Your task to perform on an android device: What's the US dollar exchange rate against the Australian Dollar? Image 0: 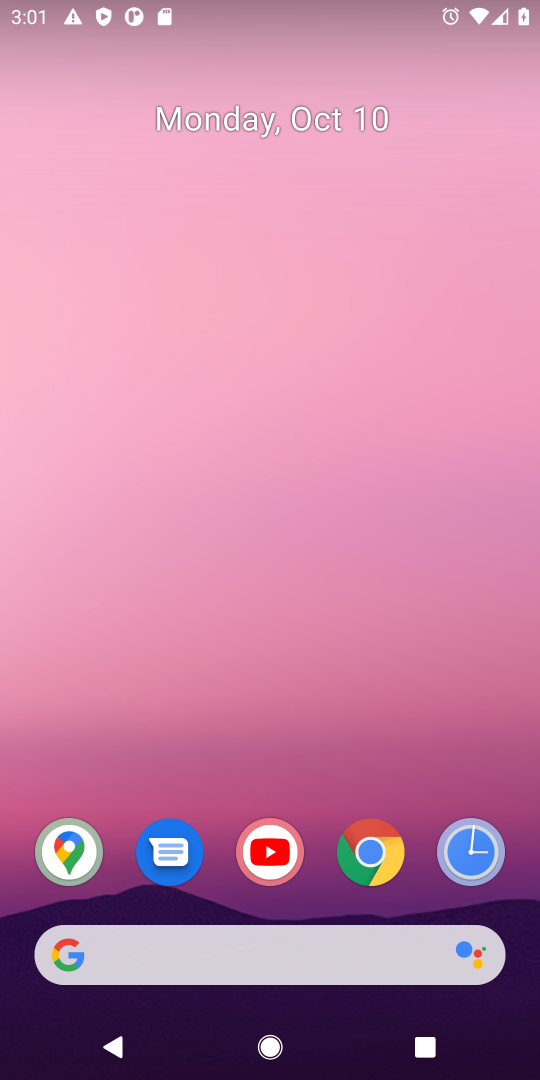
Step 0: click (175, 939)
Your task to perform on an android device: What's the US dollar exchange rate against the Australian Dollar? Image 1: 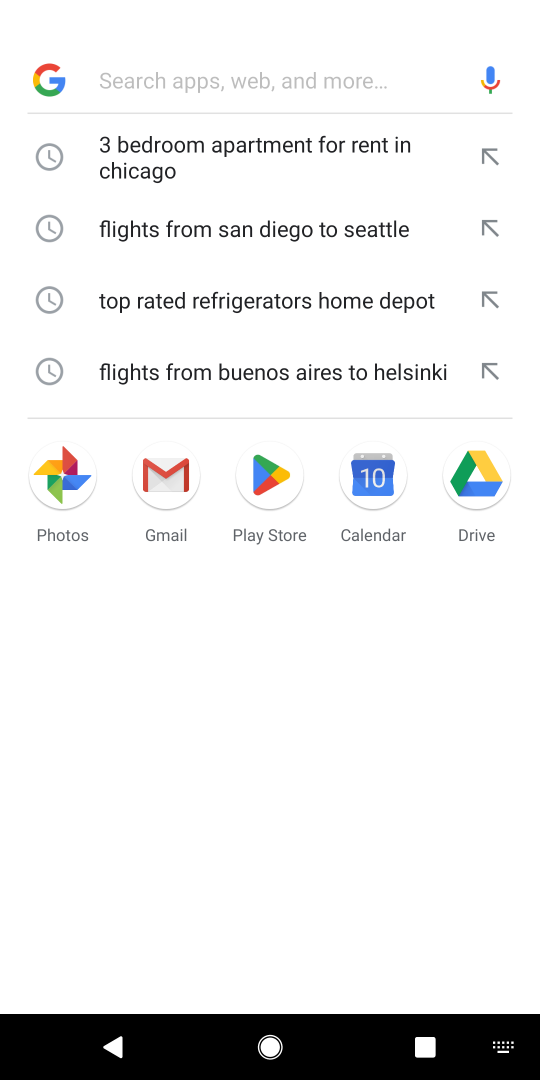
Step 1: type "US dollar exchange rate against the Australian Dollar"
Your task to perform on an android device: What's the US dollar exchange rate against the Australian Dollar? Image 2: 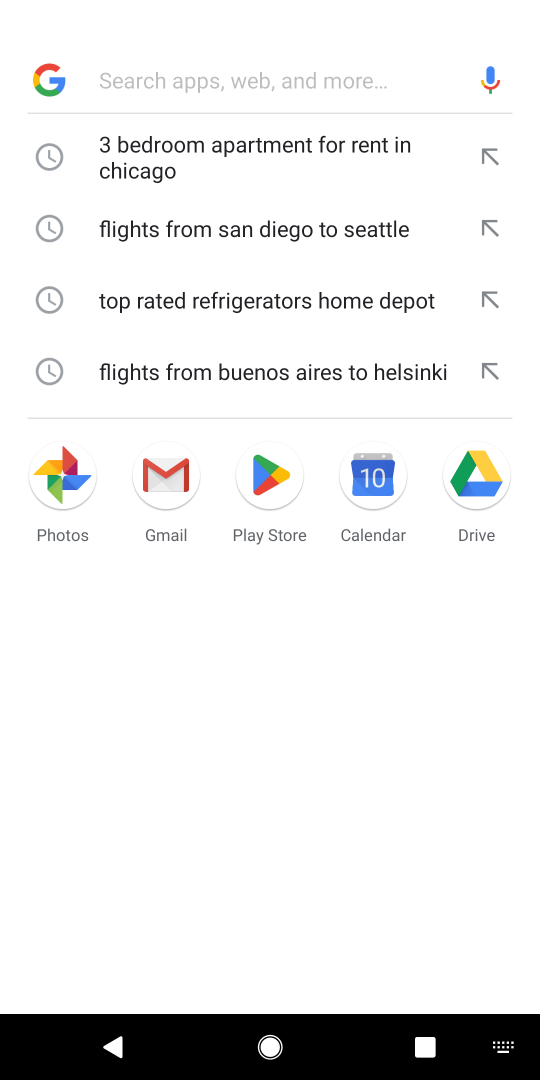
Step 2: click (154, 71)
Your task to perform on an android device: What's the US dollar exchange rate against the Australian Dollar? Image 3: 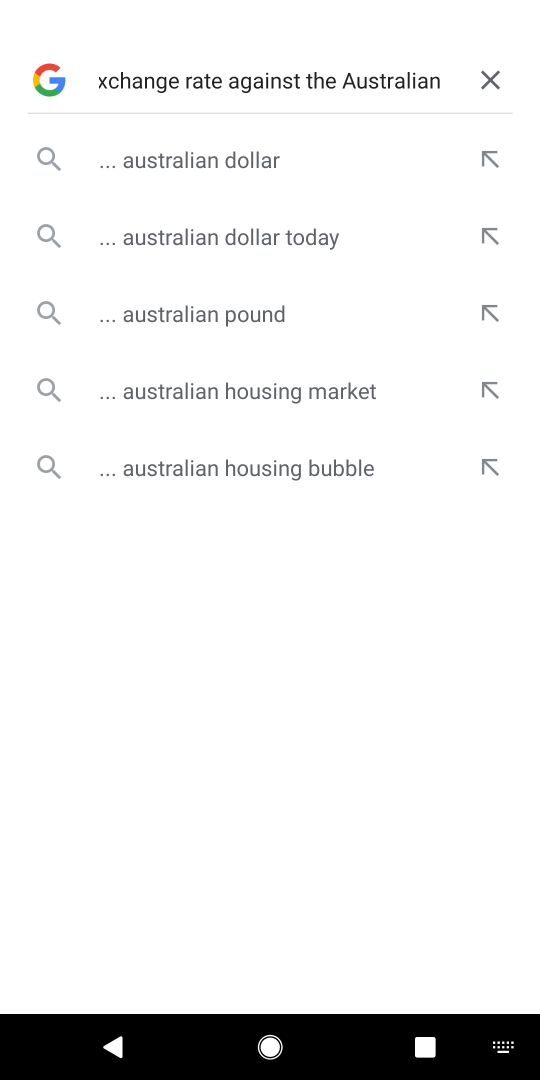
Step 3: type ""
Your task to perform on an android device: What's the US dollar exchange rate against the Australian Dollar? Image 4: 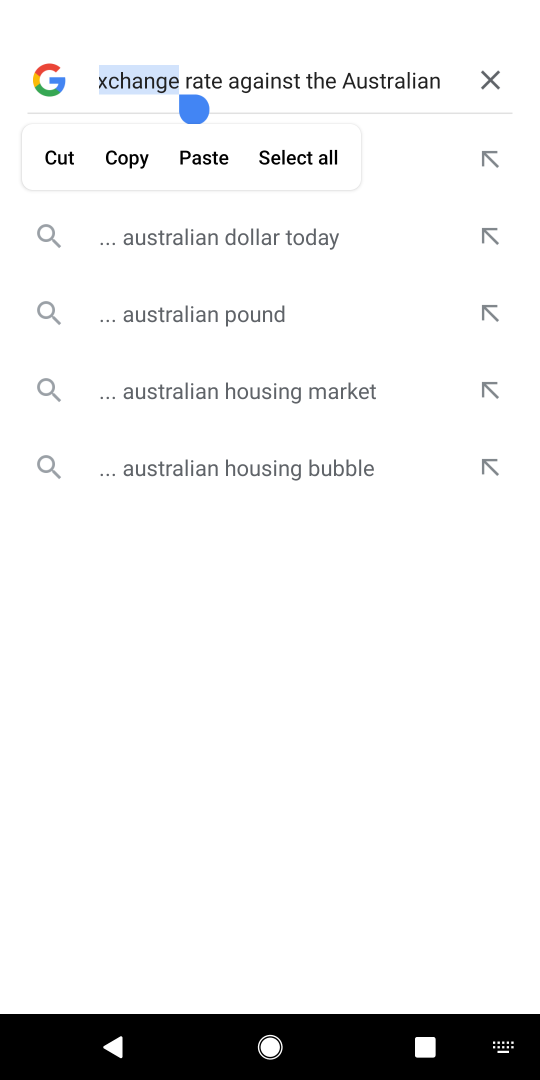
Step 4: click (405, 75)
Your task to perform on an android device: What's the US dollar exchange rate against the Australian Dollar? Image 5: 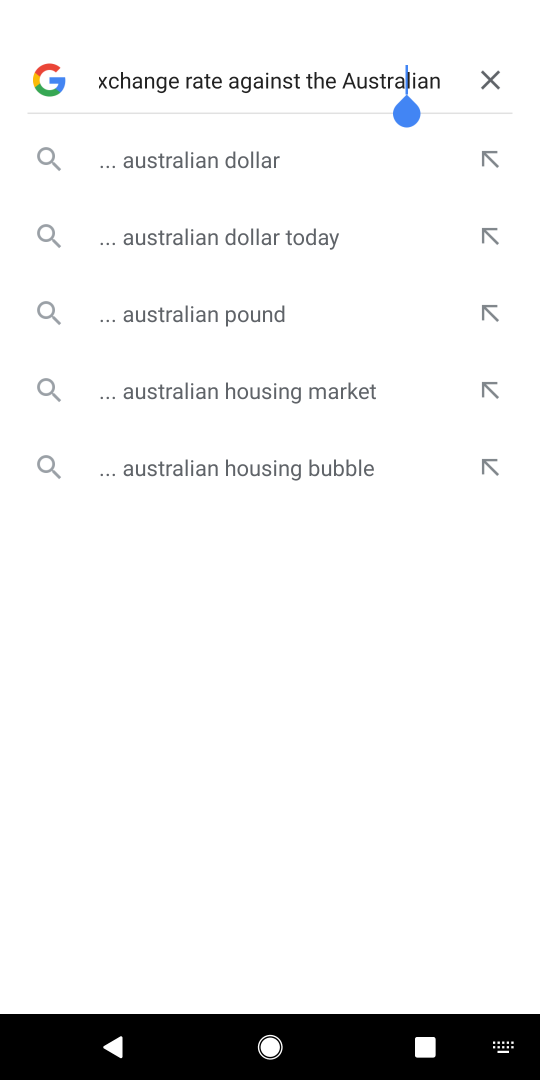
Step 5: click (221, 156)
Your task to perform on an android device: What's the US dollar exchange rate against the Australian Dollar? Image 6: 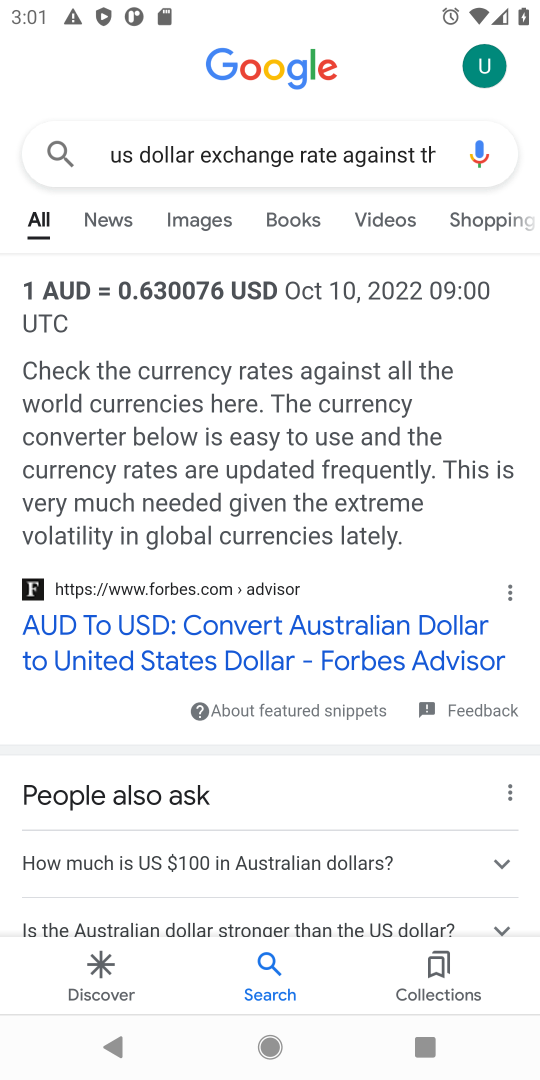
Step 6: task complete